Your task to perform on an android device: Go to eBay Image 0: 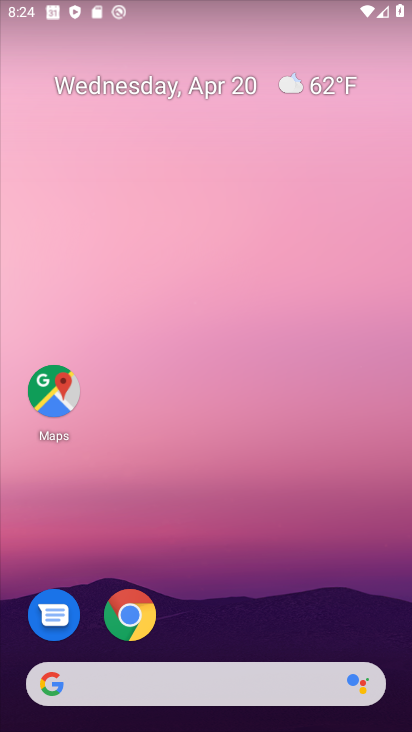
Step 0: drag from (215, 590) to (180, 94)
Your task to perform on an android device: Go to eBay Image 1: 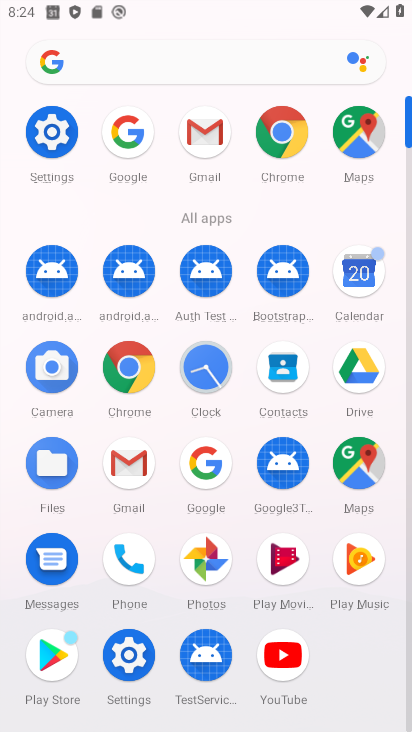
Step 1: click (127, 134)
Your task to perform on an android device: Go to eBay Image 2: 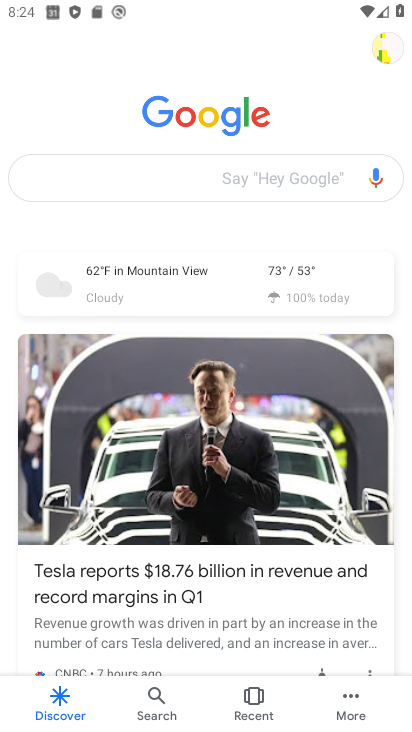
Step 2: click (188, 185)
Your task to perform on an android device: Go to eBay Image 3: 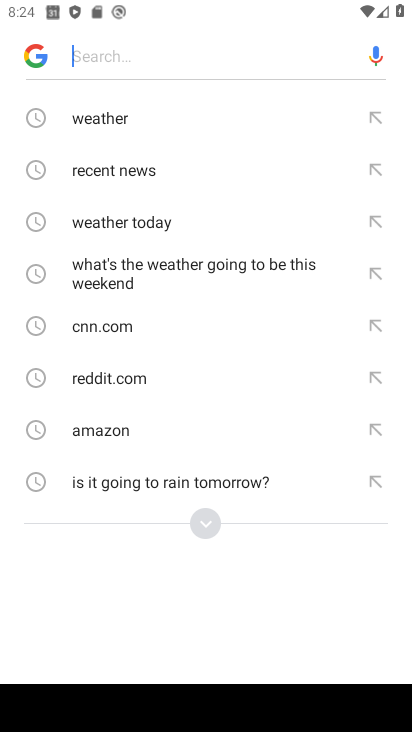
Step 3: type "ebay"
Your task to perform on an android device: Go to eBay Image 4: 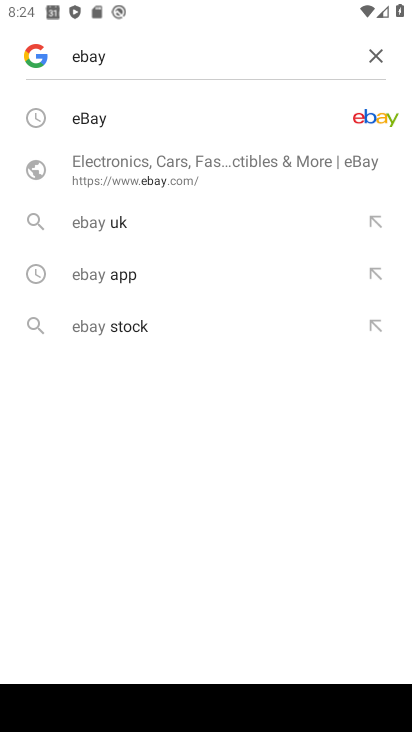
Step 4: click (133, 119)
Your task to perform on an android device: Go to eBay Image 5: 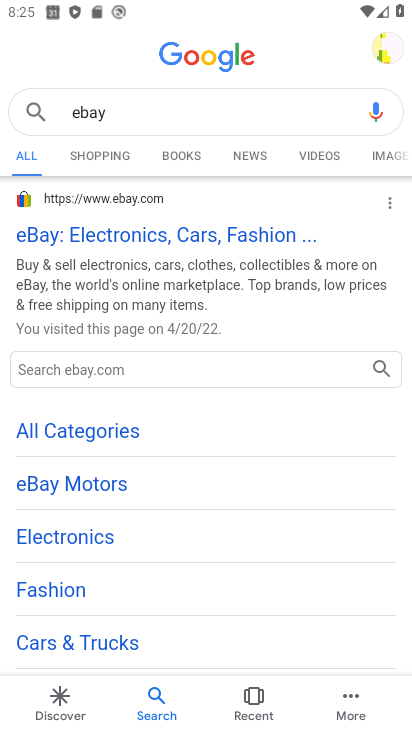
Step 5: task complete